Your task to perform on an android device: toggle show notifications on the lock screen Image 0: 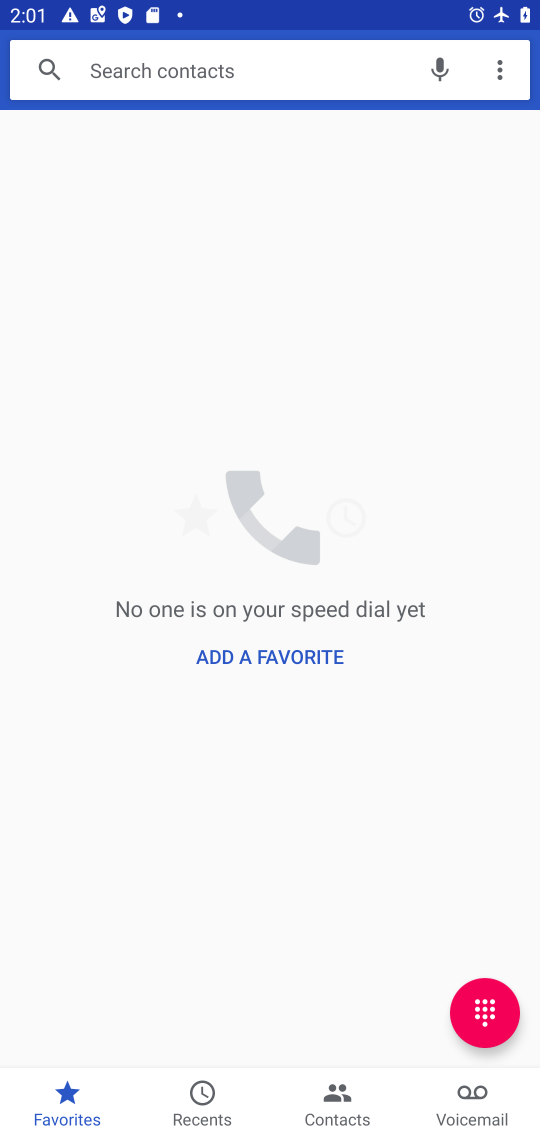
Step 0: press home button
Your task to perform on an android device: toggle show notifications on the lock screen Image 1: 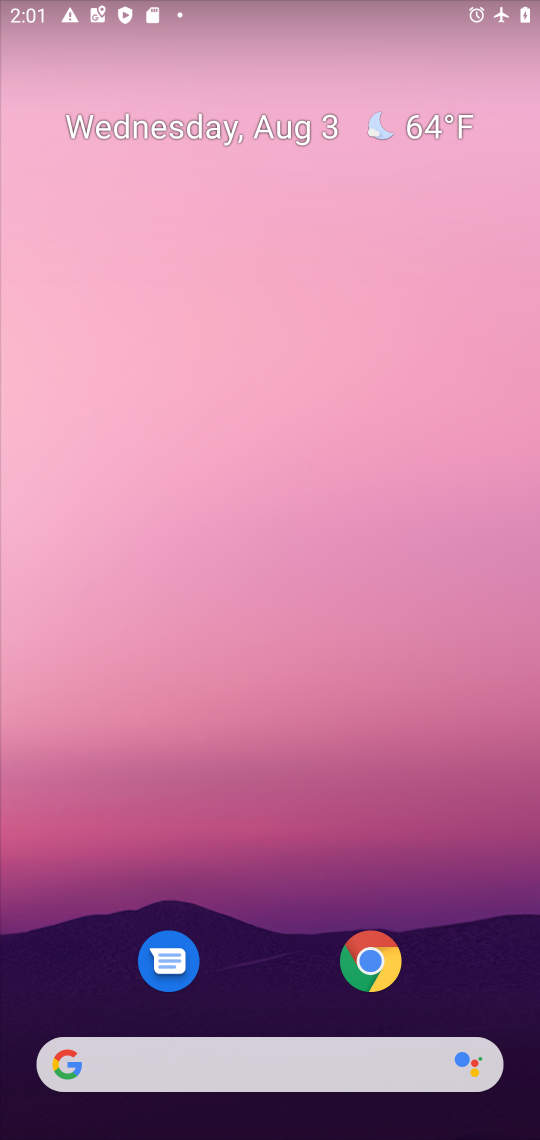
Step 1: drag from (285, 965) to (275, 32)
Your task to perform on an android device: toggle show notifications on the lock screen Image 2: 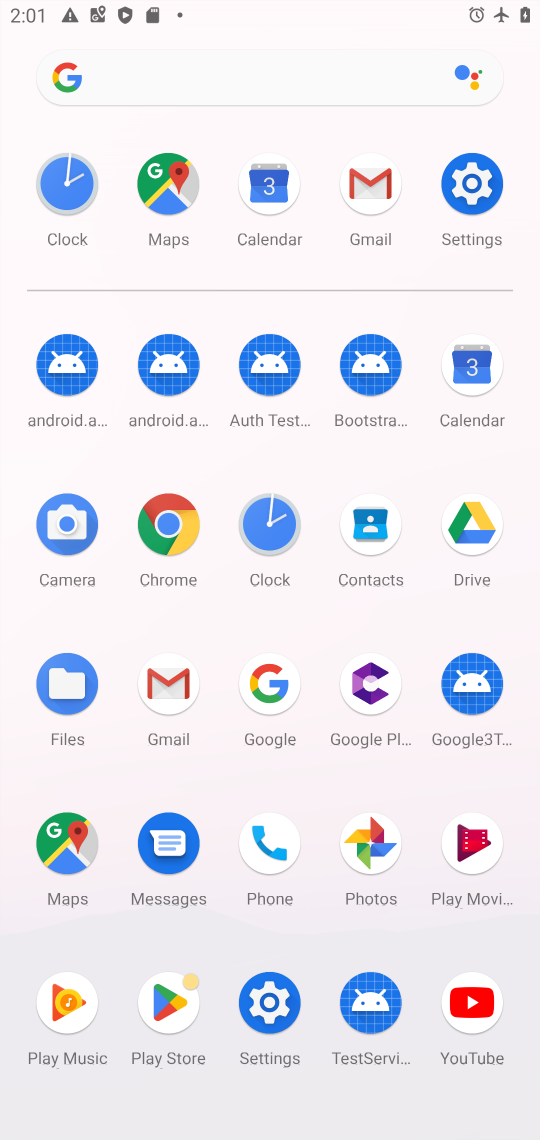
Step 2: click (474, 189)
Your task to perform on an android device: toggle show notifications on the lock screen Image 3: 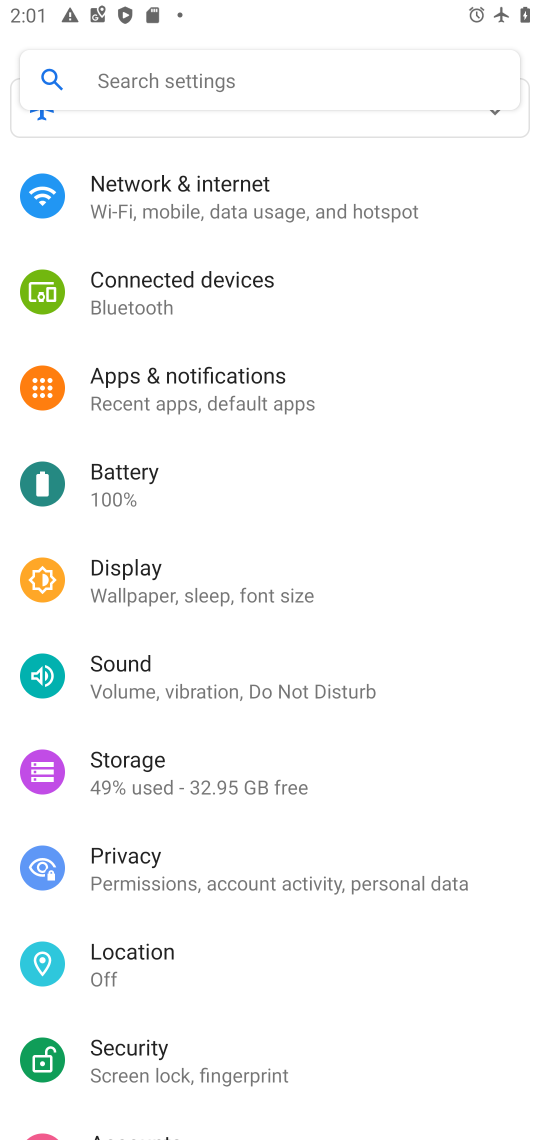
Step 3: click (125, 393)
Your task to perform on an android device: toggle show notifications on the lock screen Image 4: 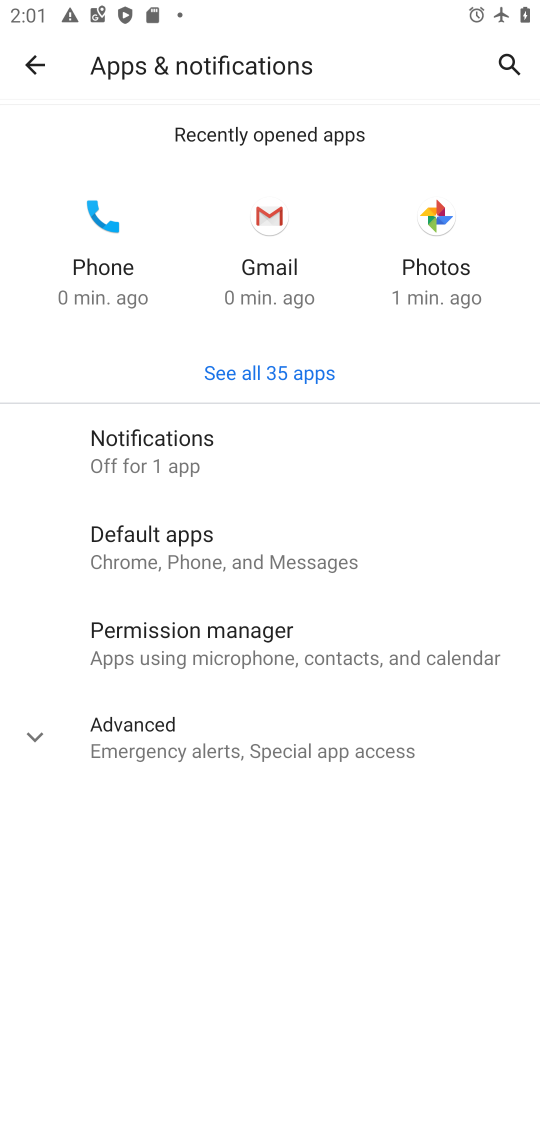
Step 4: click (170, 447)
Your task to perform on an android device: toggle show notifications on the lock screen Image 5: 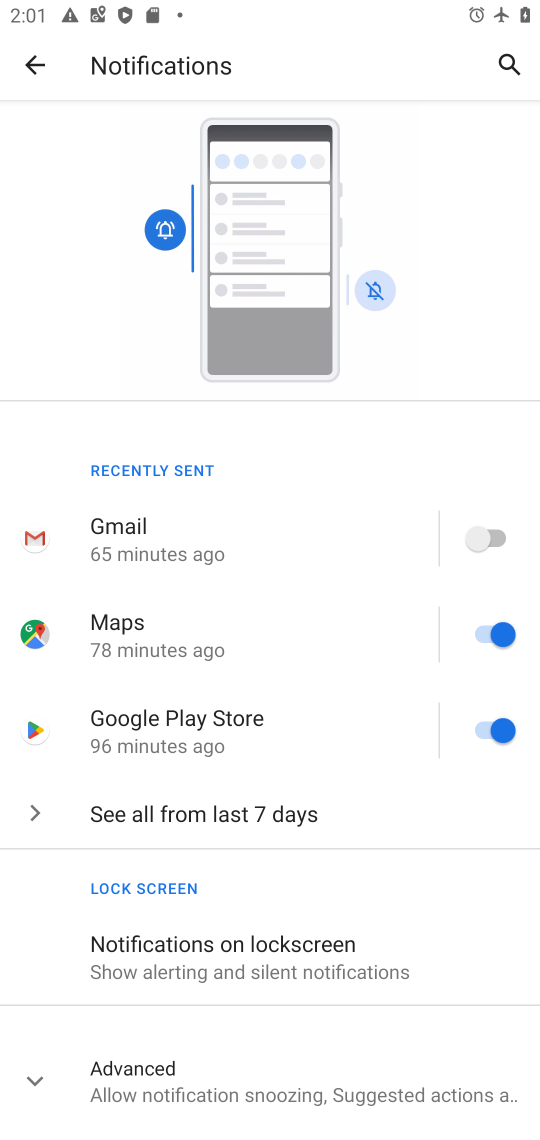
Step 5: click (187, 963)
Your task to perform on an android device: toggle show notifications on the lock screen Image 6: 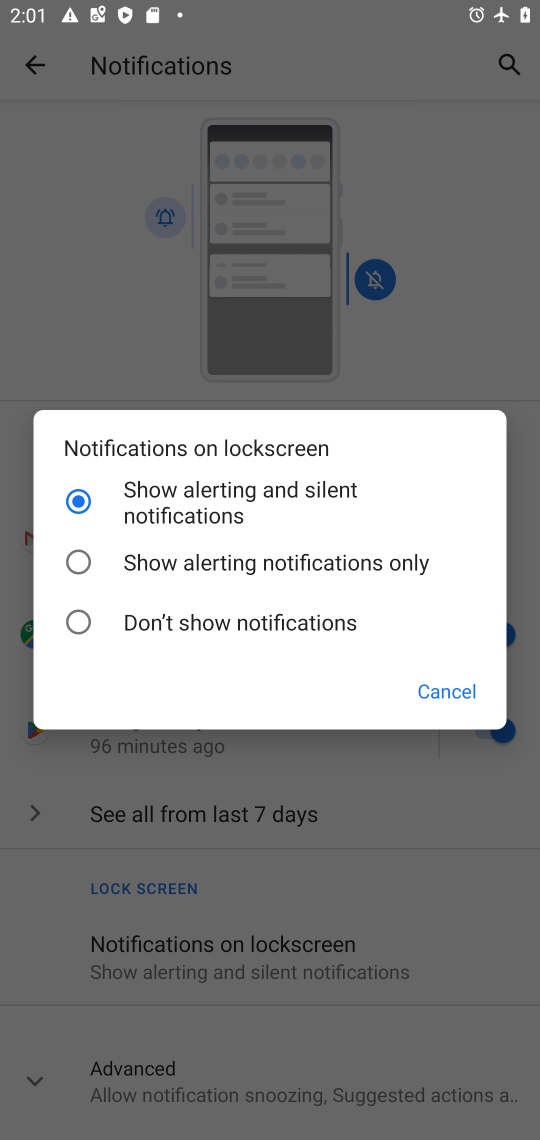
Step 6: click (78, 626)
Your task to perform on an android device: toggle show notifications on the lock screen Image 7: 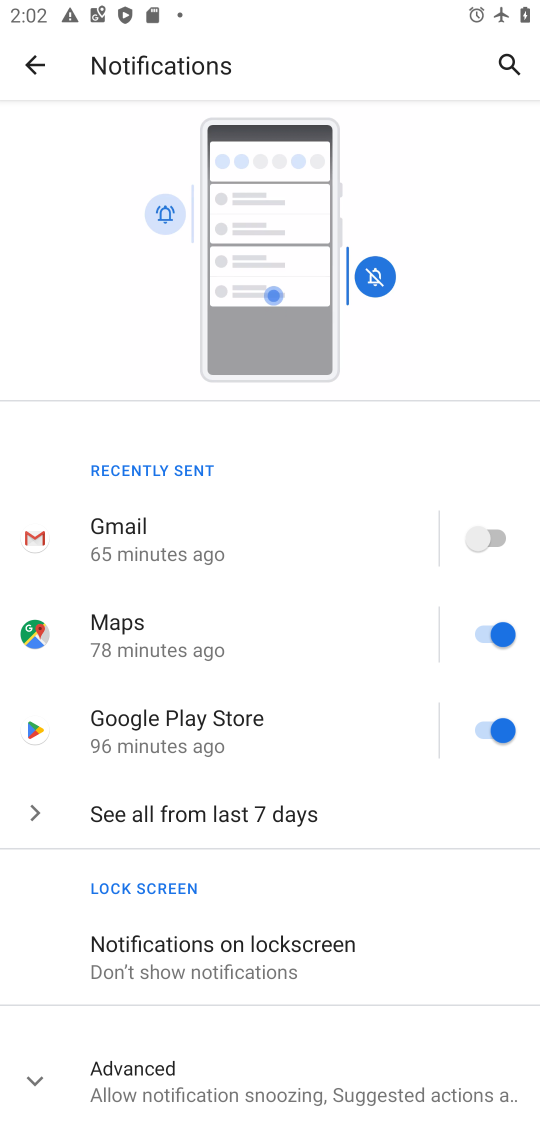
Step 7: task complete